Your task to perform on an android device: Open Google Image 0: 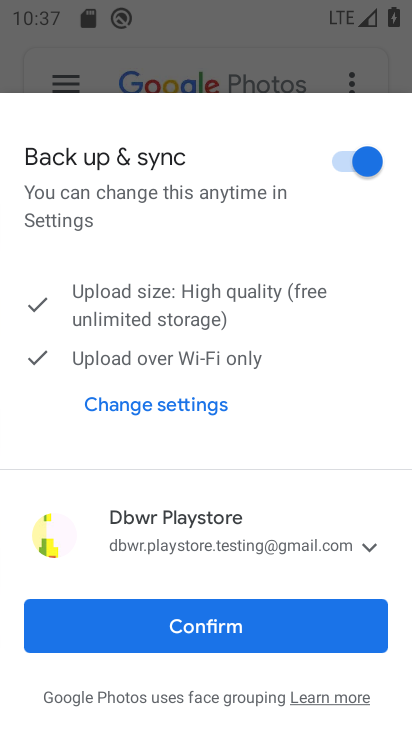
Step 0: press home button
Your task to perform on an android device: Open Google Image 1: 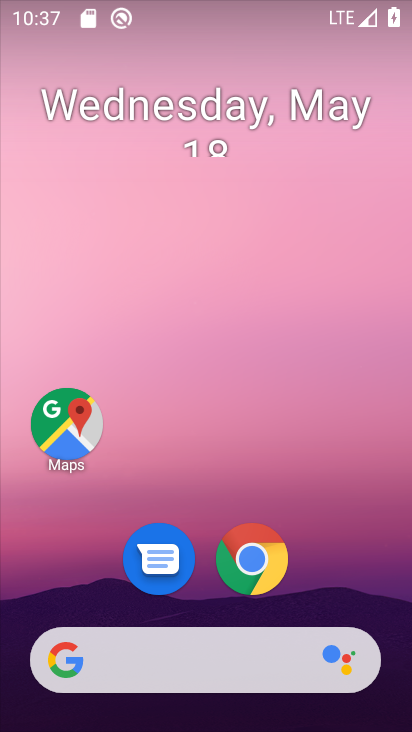
Step 1: click (161, 666)
Your task to perform on an android device: Open Google Image 2: 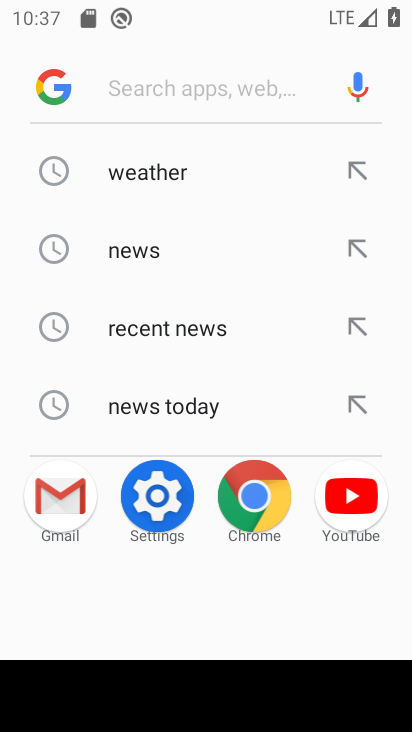
Step 2: click (48, 91)
Your task to perform on an android device: Open Google Image 3: 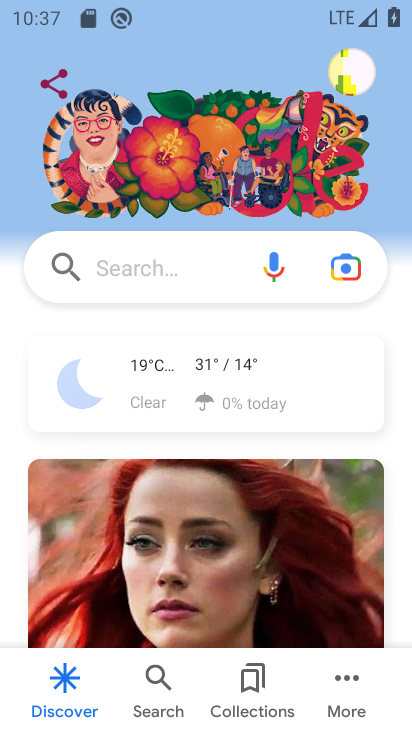
Step 3: task complete